Your task to perform on an android device: turn off airplane mode Image 0: 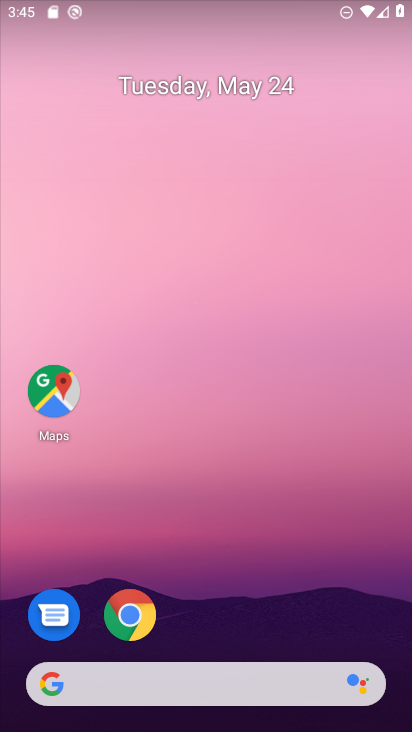
Step 0: drag from (258, 597) to (327, 191)
Your task to perform on an android device: turn off airplane mode Image 1: 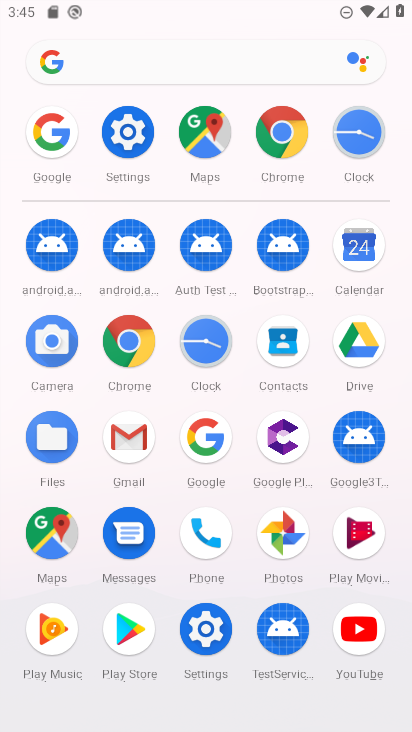
Step 1: click (144, 146)
Your task to perform on an android device: turn off airplane mode Image 2: 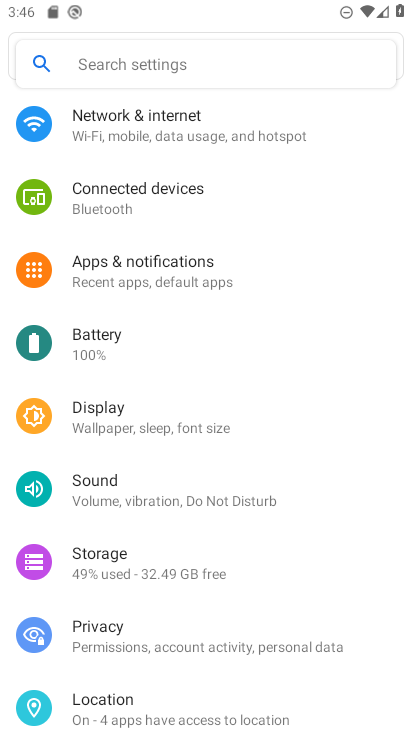
Step 2: click (261, 102)
Your task to perform on an android device: turn off airplane mode Image 3: 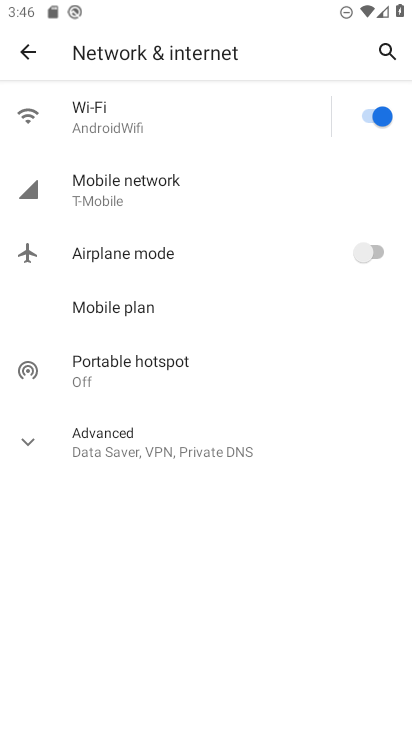
Step 3: task complete